Your task to perform on an android device: Open the stopwatch Image 0: 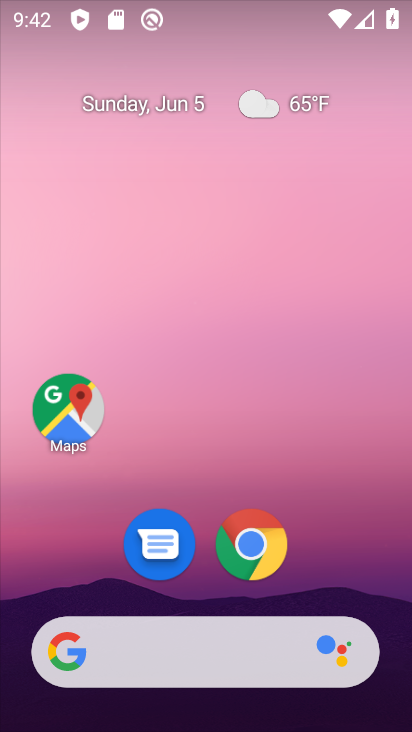
Step 0: drag from (371, 587) to (190, 89)
Your task to perform on an android device: Open the stopwatch Image 1: 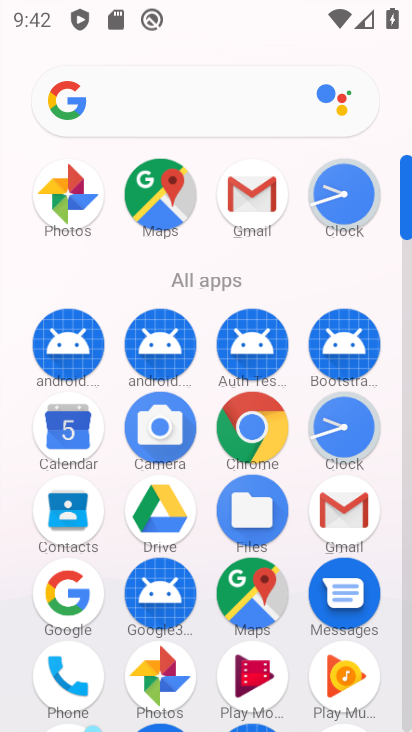
Step 1: click (348, 209)
Your task to perform on an android device: Open the stopwatch Image 2: 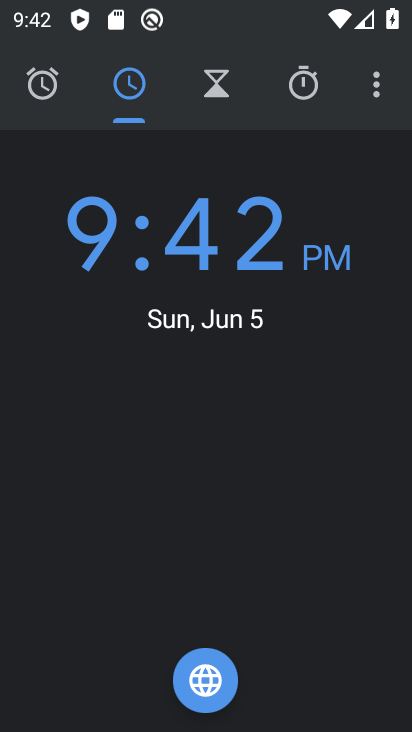
Step 2: click (295, 105)
Your task to perform on an android device: Open the stopwatch Image 3: 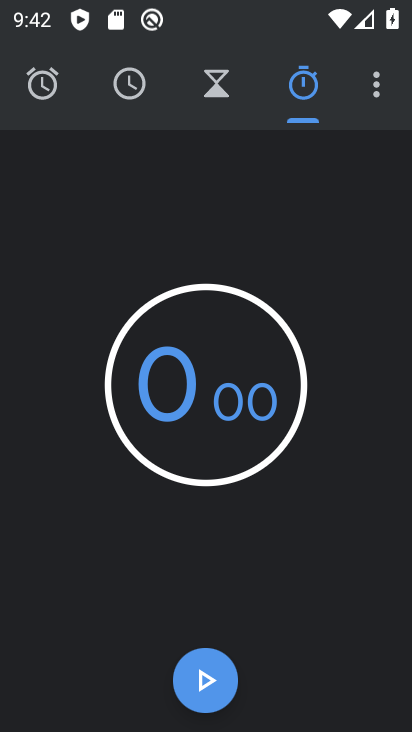
Step 3: task complete